Your task to perform on an android device: Toggle the flashlight Image 0: 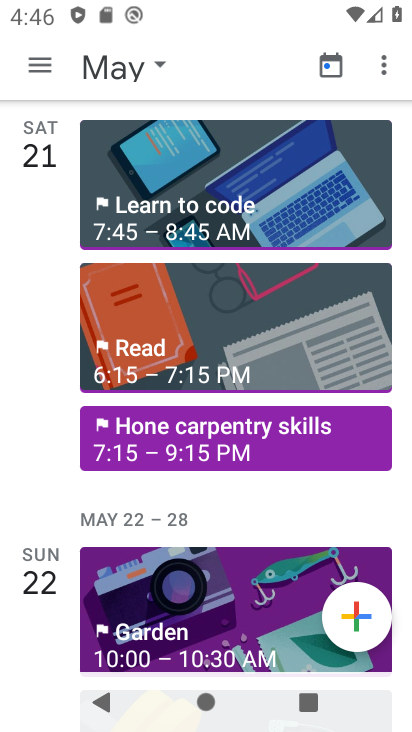
Step 0: press home button
Your task to perform on an android device: Toggle the flashlight Image 1: 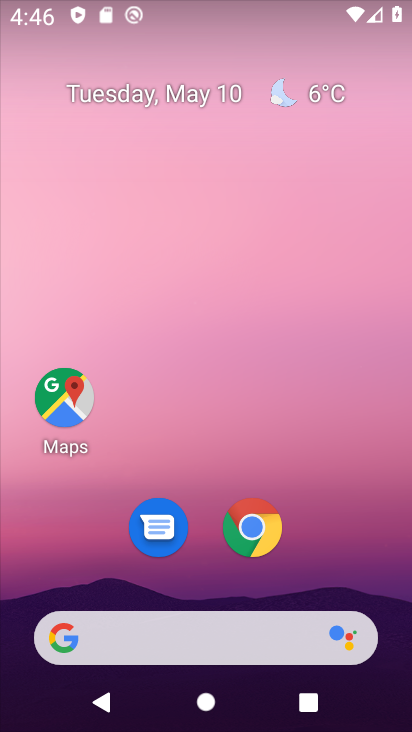
Step 1: drag from (330, 565) to (310, 13)
Your task to perform on an android device: Toggle the flashlight Image 2: 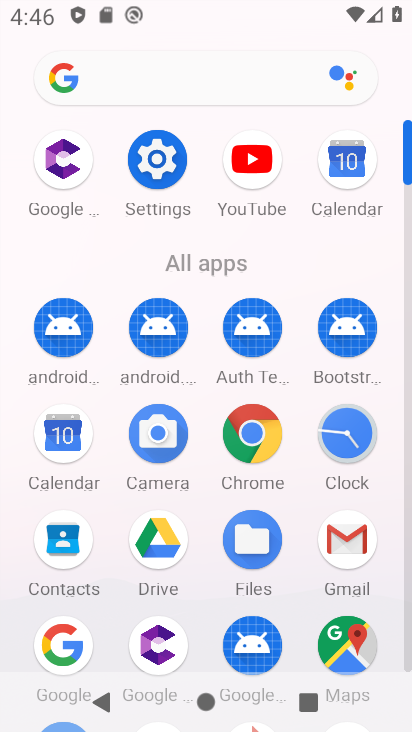
Step 2: click (160, 143)
Your task to perform on an android device: Toggle the flashlight Image 3: 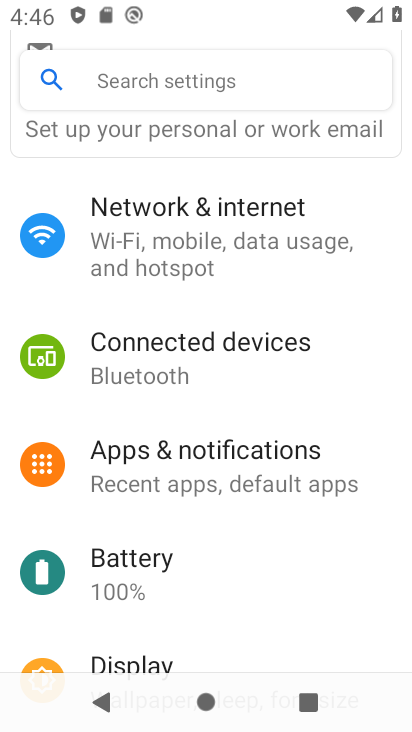
Step 3: task complete